Your task to perform on an android device: Open Google Chrome Image 0: 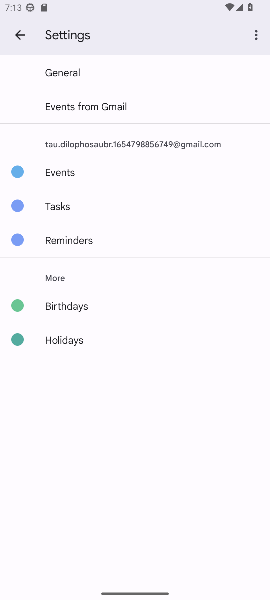
Step 0: press home button
Your task to perform on an android device: Open Google Chrome Image 1: 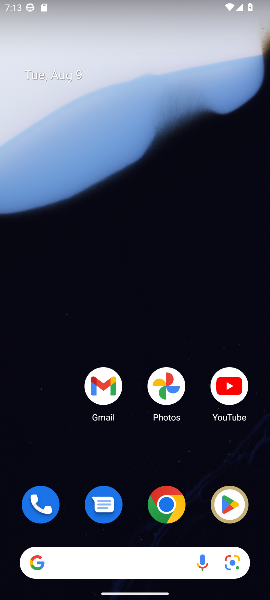
Step 1: click (155, 501)
Your task to perform on an android device: Open Google Chrome Image 2: 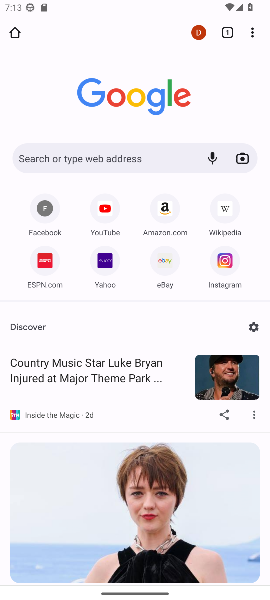
Step 2: task complete